Your task to perform on an android device: see tabs open on other devices in the chrome app Image 0: 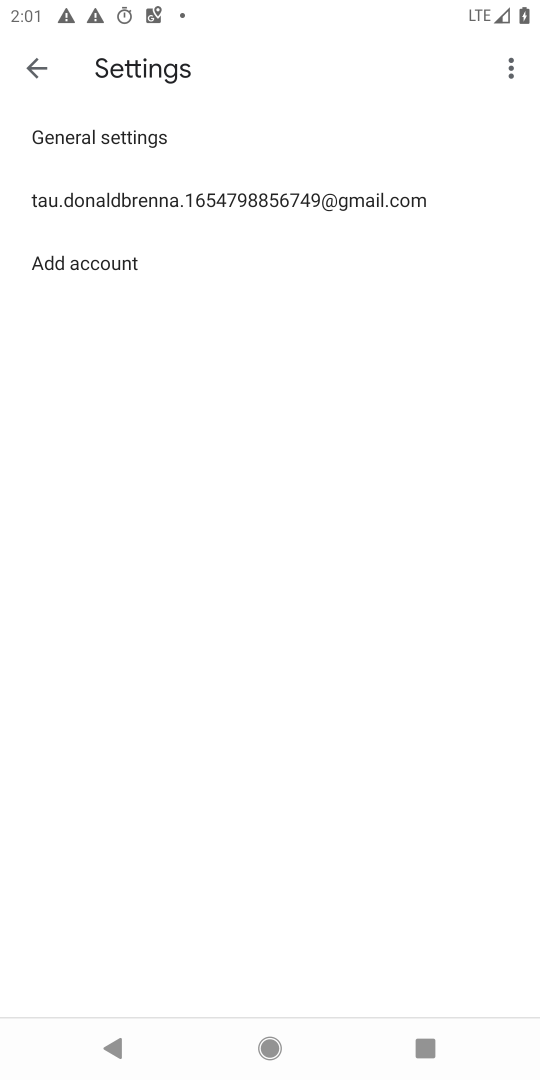
Step 0: press home button
Your task to perform on an android device: see tabs open on other devices in the chrome app Image 1: 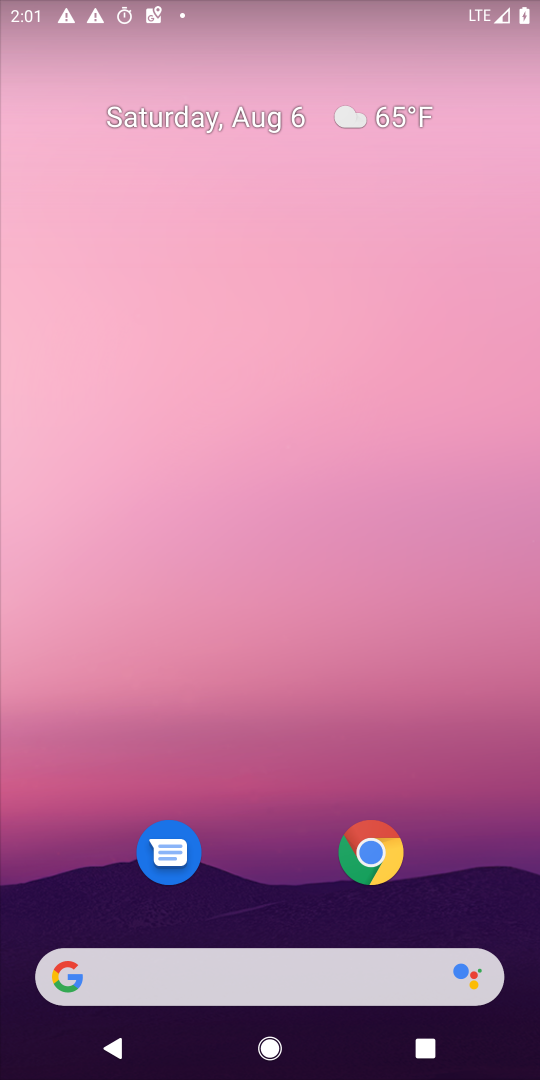
Step 1: drag from (398, 974) to (381, 342)
Your task to perform on an android device: see tabs open on other devices in the chrome app Image 2: 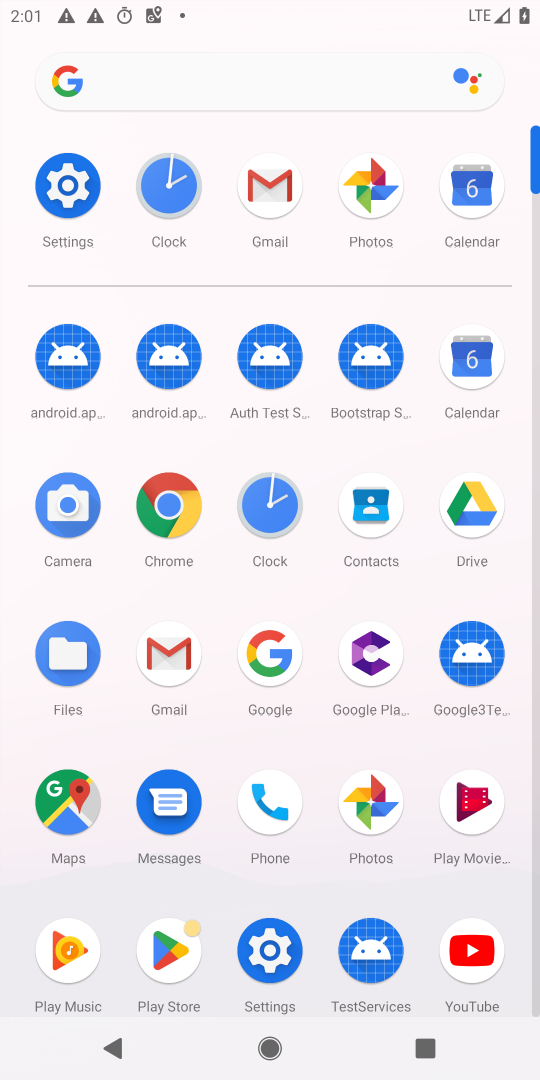
Step 2: click (147, 504)
Your task to perform on an android device: see tabs open on other devices in the chrome app Image 3: 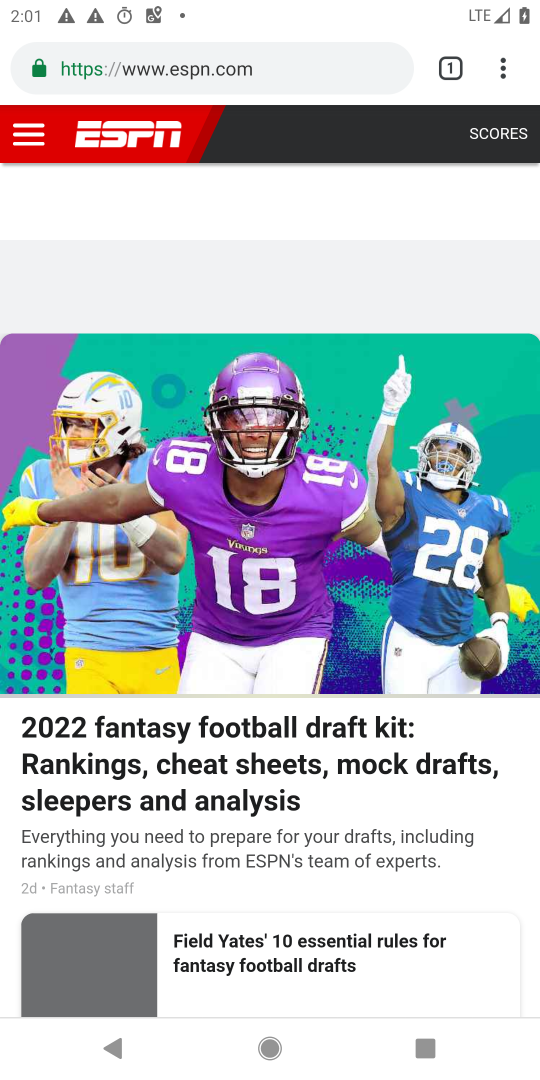
Step 3: click (449, 75)
Your task to perform on an android device: see tabs open on other devices in the chrome app Image 4: 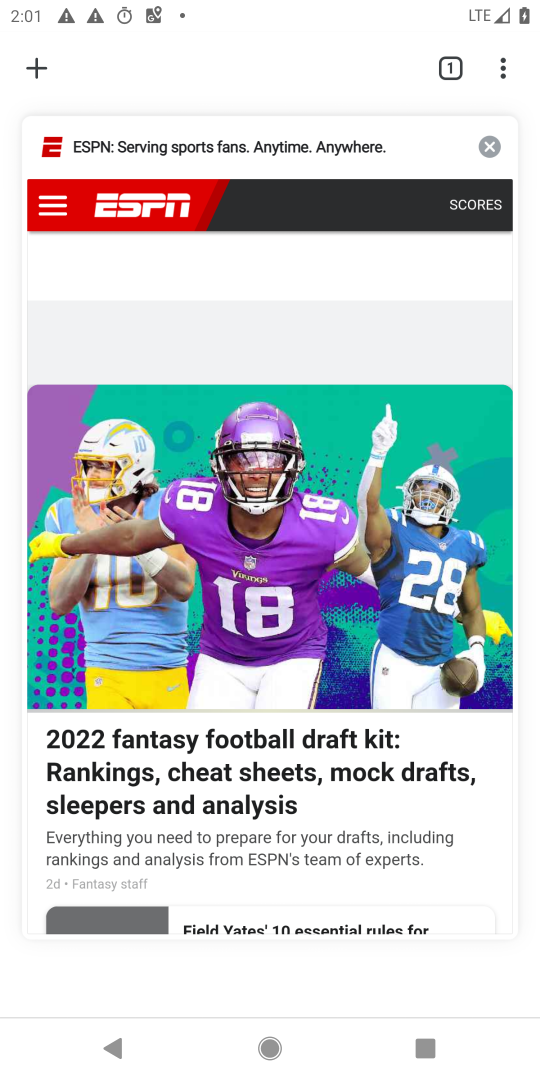
Step 4: click (38, 71)
Your task to perform on an android device: see tabs open on other devices in the chrome app Image 5: 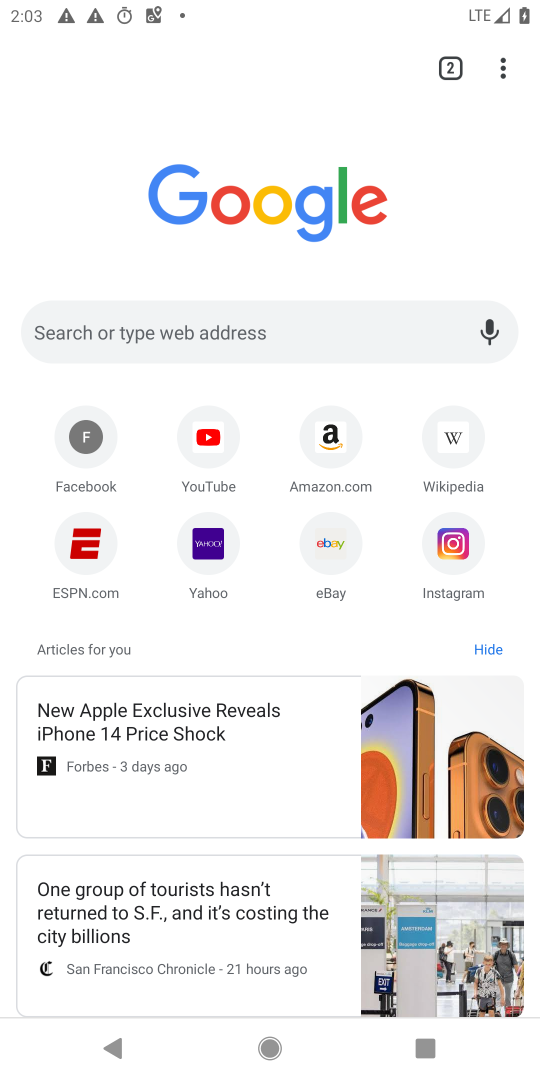
Step 5: task complete